Your task to perform on an android device: change notification settings in the gmail app Image 0: 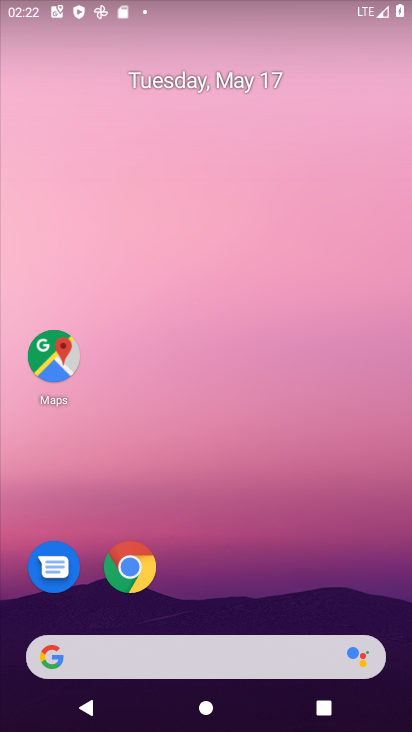
Step 0: drag from (390, 616) to (283, 51)
Your task to perform on an android device: change notification settings in the gmail app Image 1: 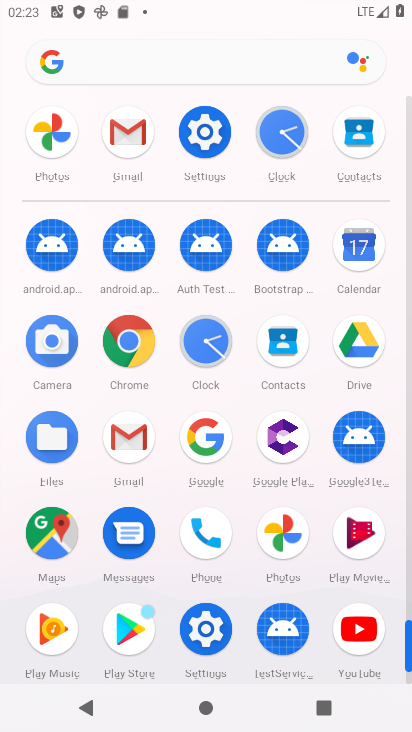
Step 1: click (127, 435)
Your task to perform on an android device: change notification settings in the gmail app Image 2: 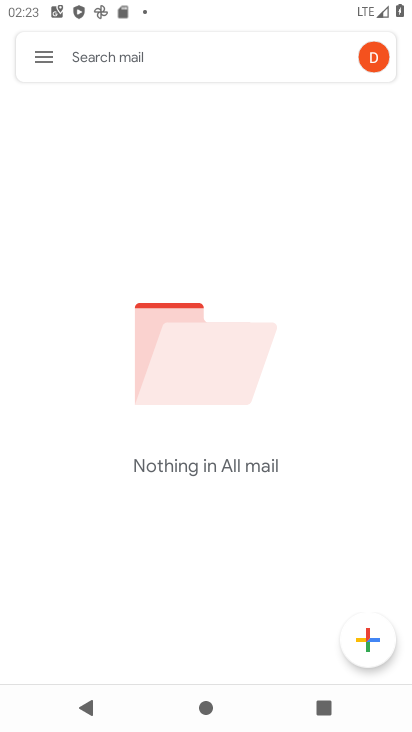
Step 2: click (47, 62)
Your task to perform on an android device: change notification settings in the gmail app Image 3: 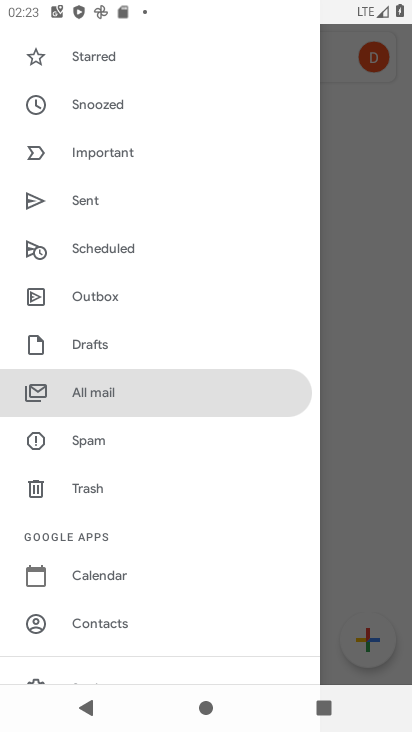
Step 3: drag from (130, 595) to (146, 196)
Your task to perform on an android device: change notification settings in the gmail app Image 4: 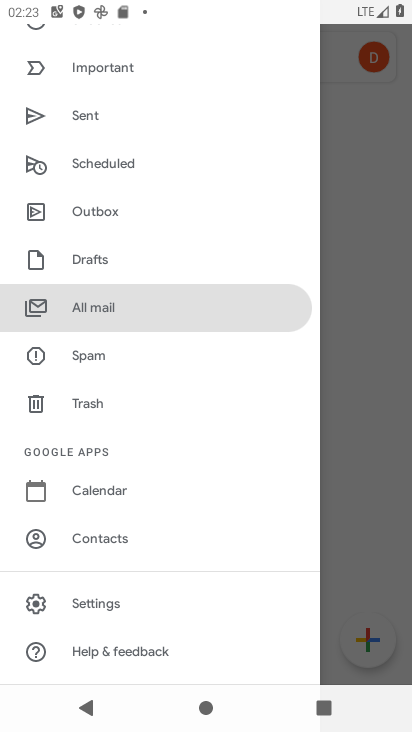
Step 4: click (97, 604)
Your task to perform on an android device: change notification settings in the gmail app Image 5: 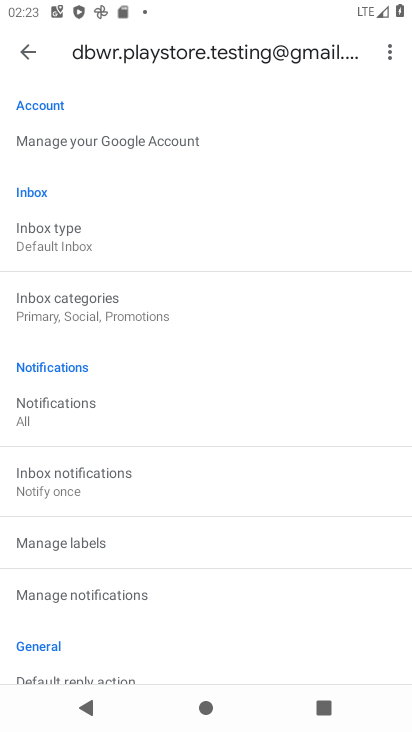
Step 5: click (103, 595)
Your task to perform on an android device: change notification settings in the gmail app Image 6: 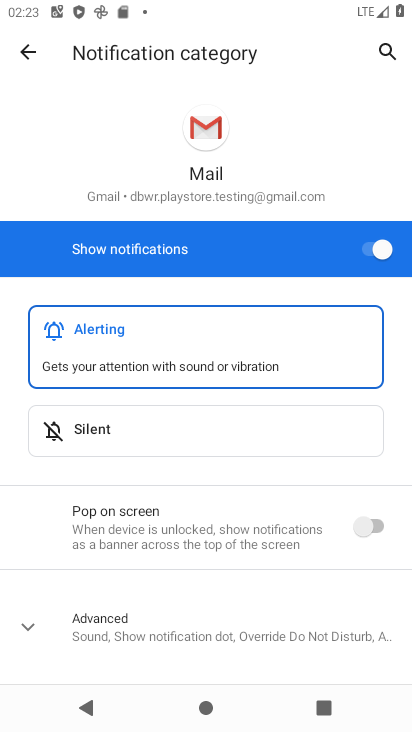
Step 6: click (369, 248)
Your task to perform on an android device: change notification settings in the gmail app Image 7: 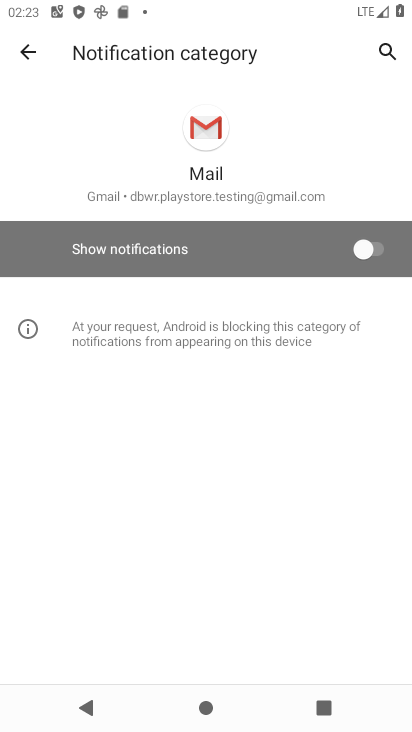
Step 7: task complete